Your task to perform on an android device: Open Youtube and go to the subscriptions tab Image 0: 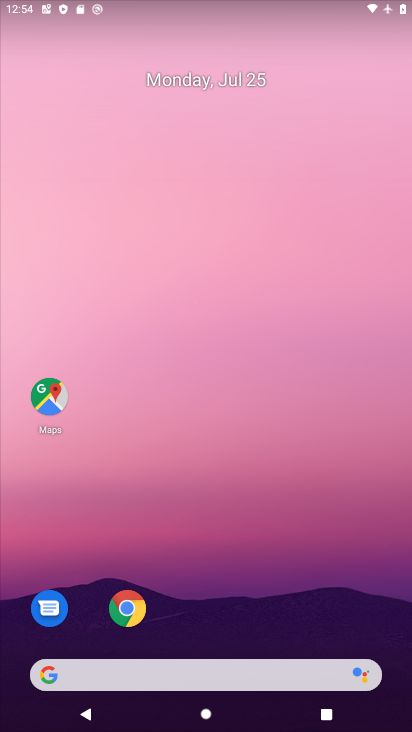
Step 0: drag from (321, 674) to (256, 308)
Your task to perform on an android device: Open Youtube and go to the subscriptions tab Image 1: 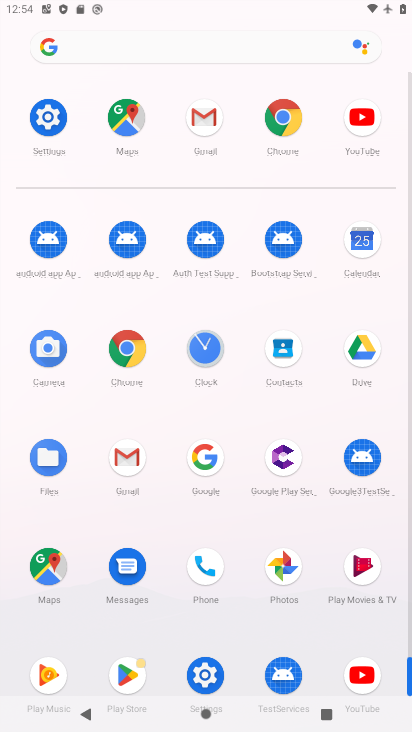
Step 1: click (370, 674)
Your task to perform on an android device: Open Youtube and go to the subscriptions tab Image 2: 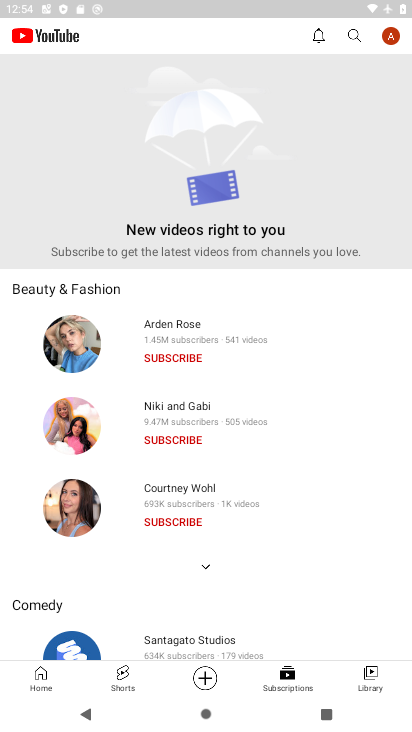
Step 2: click (279, 674)
Your task to perform on an android device: Open Youtube and go to the subscriptions tab Image 3: 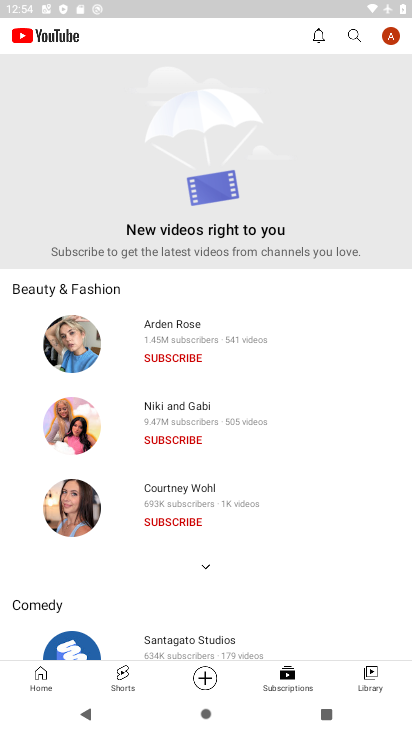
Step 3: task complete